Your task to perform on an android device: refresh tabs in the chrome app Image 0: 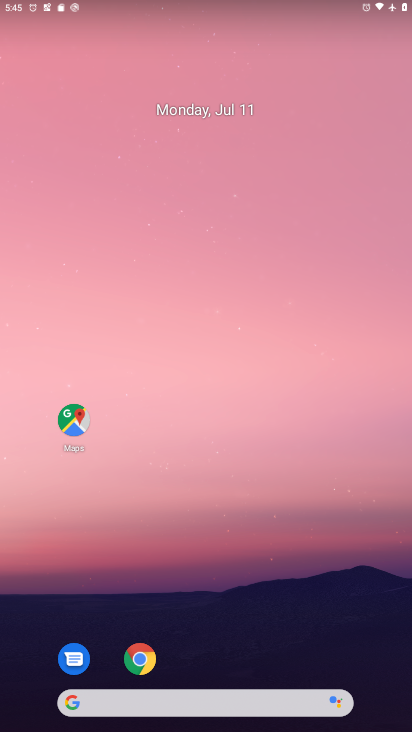
Step 0: click (139, 659)
Your task to perform on an android device: refresh tabs in the chrome app Image 1: 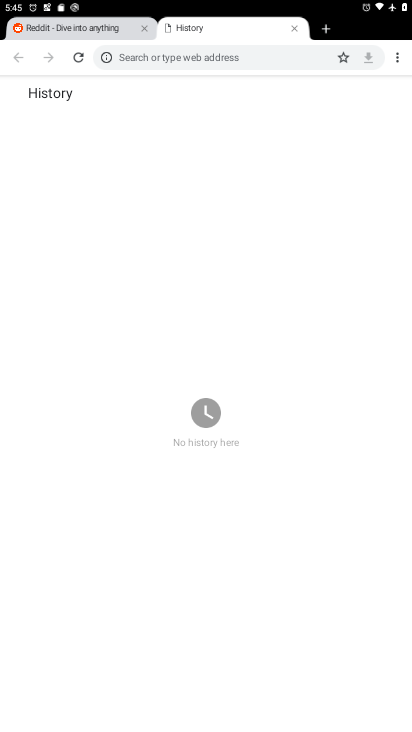
Step 1: click (77, 56)
Your task to perform on an android device: refresh tabs in the chrome app Image 2: 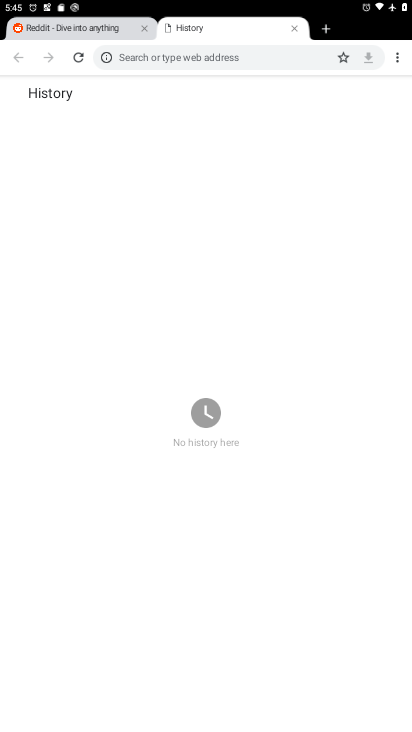
Step 2: click (77, 56)
Your task to perform on an android device: refresh tabs in the chrome app Image 3: 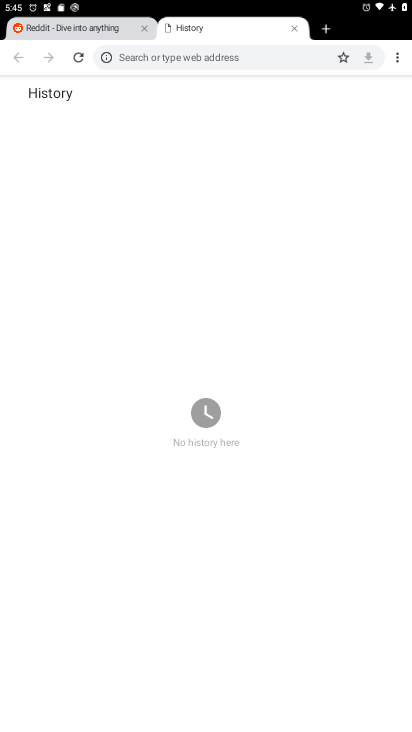
Step 3: task complete